Your task to perform on an android device: Open the calendar and show me this week's events Image 0: 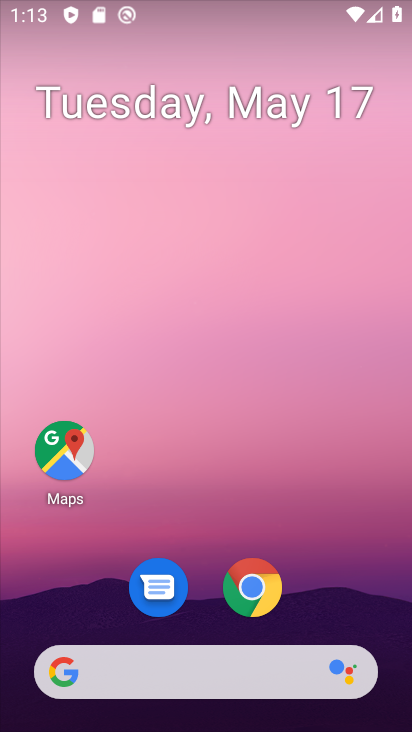
Step 0: drag from (353, 625) to (301, 144)
Your task to perform on an android device: Open the calendar and show me this week's events Image 1: 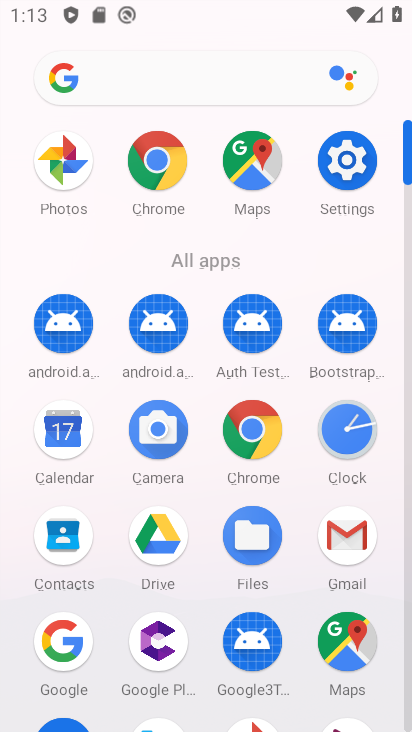
Step 1: click (64, 439)
Your task to perform on an android device: Open the calendar and show me this week's events Image 2: 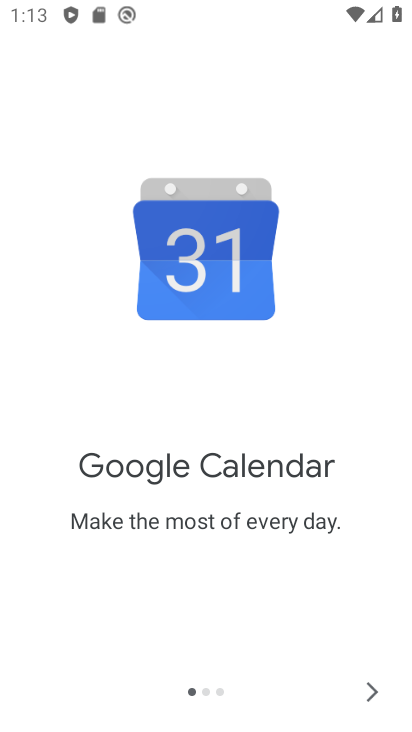
Step 2: click (377, 693)
Your task to perform on an android device: Open the calendar and show me this week's events Image 3: 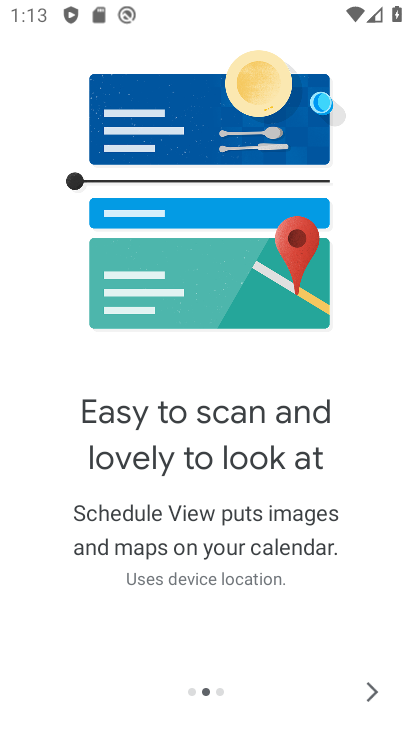
Step 3: click (377, 693)
Your task to perform on an android device: Open the calendar and show me this week's events Image 4: 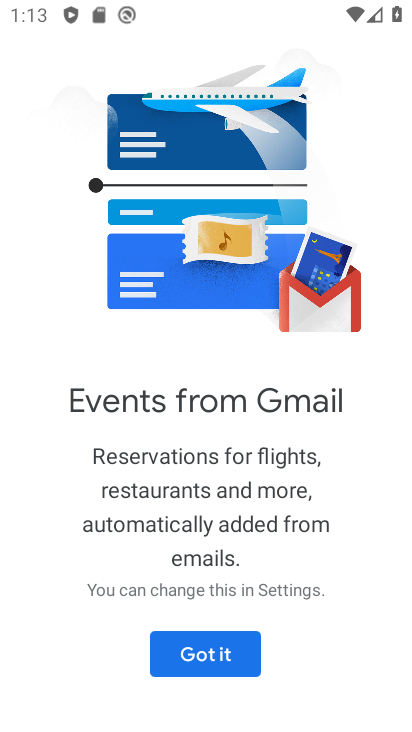
Step 4: click (234, 657)
Your task to perform on an android device: Open the calendar and show me this week's events Image 5: 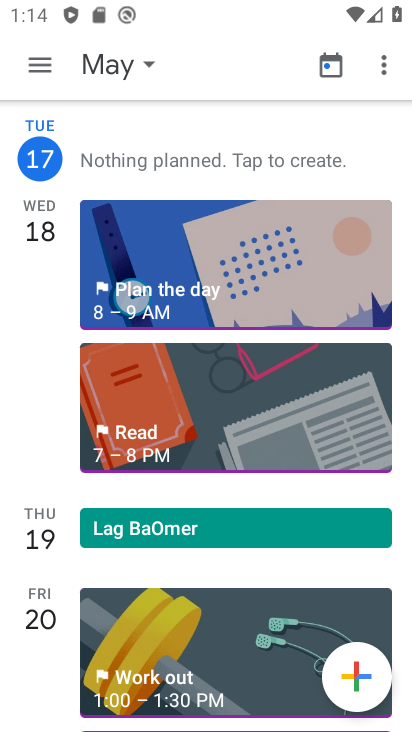
Step 5: task complete